Your task to perform on an android device: find snoozed emails in the gmail app Image 0: 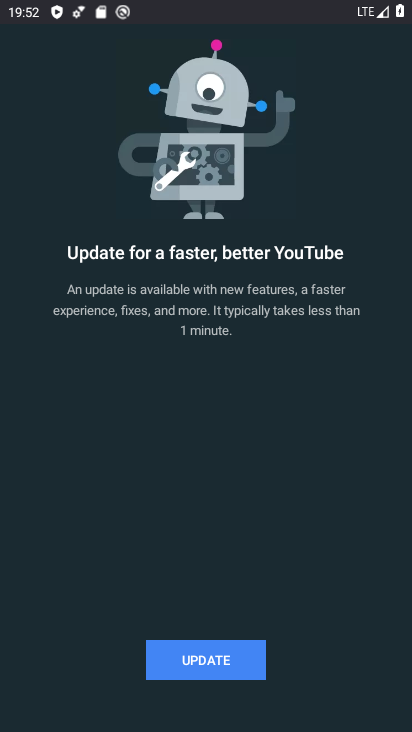
Step 0: press back button
Your task to perform on an android device: find snoozed emails in the gmail app Image 1: 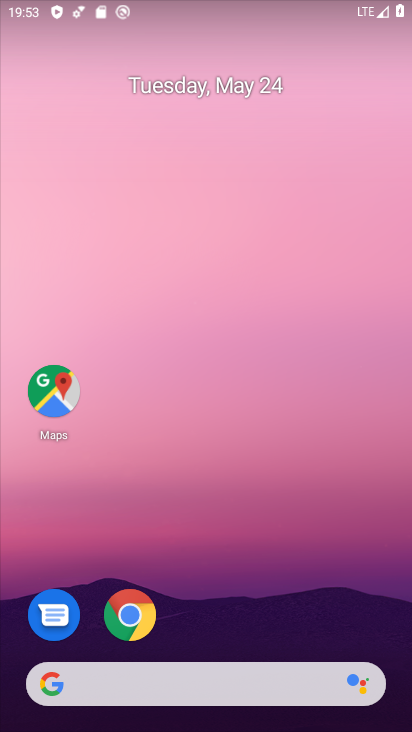
Step 1: drag from (273, 612) to (283, 280)
Your task to perform on an android device: find snoozed emails in the gmail app Image 2: 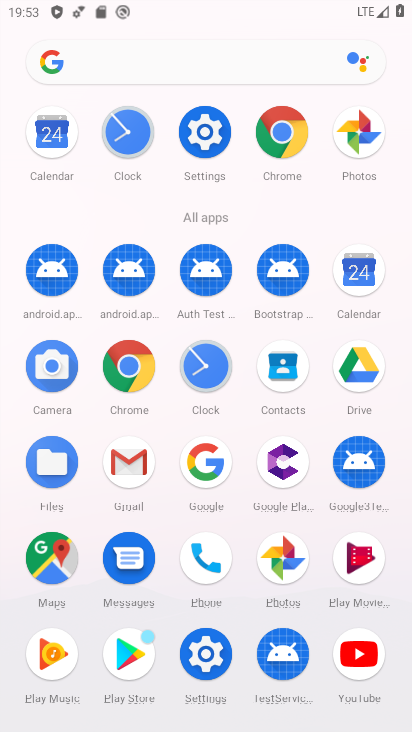
Step 2: click (120, 461)
Your task to perform on an android device: find snoozed emails in the gmail app Image 3: 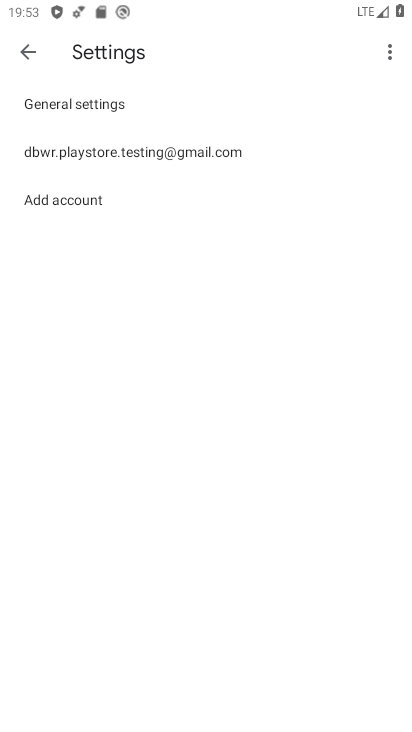
Step 3: click (27, 44)
Your task to perform on an android device: find snoozed emails in the gmail app Image 4: 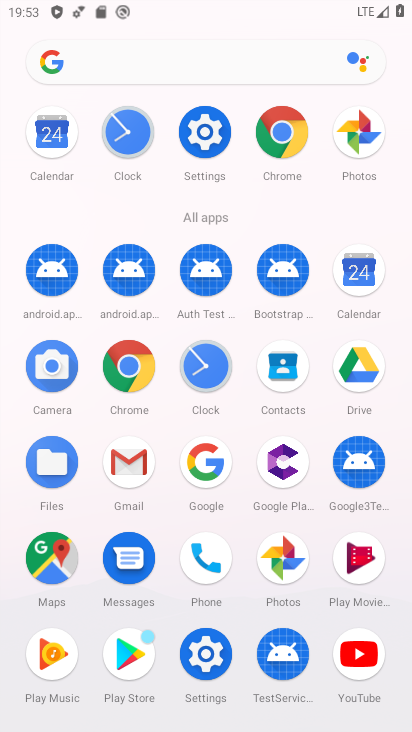
Step 4: click (130, 470)
Your task to perform on an android device: find snoozed emails in the gmail app Image 5: 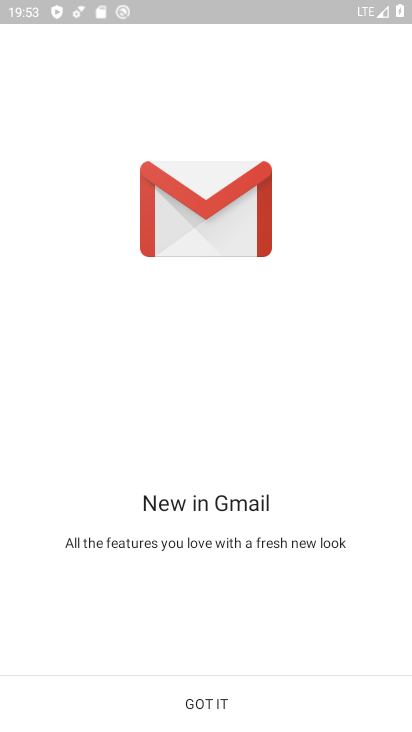
Step 5: click (202, 703)
Your task to perform on an android device: find snoozed emails in the gmail app Image 6: 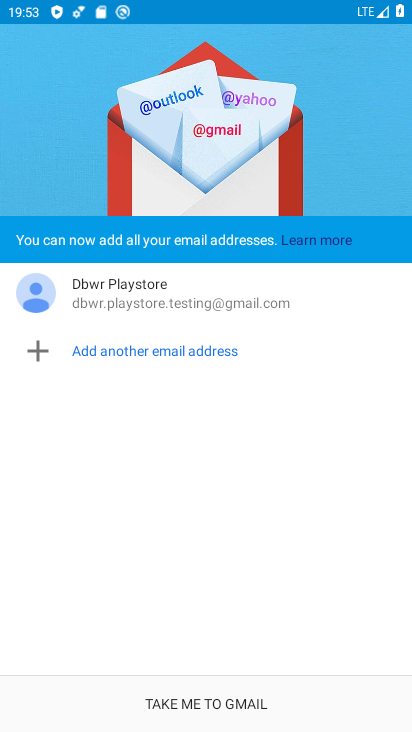
Step 6: click (203, 704)
Your task to perform on an android device: find snoozed emails in the gmail app Image 7: 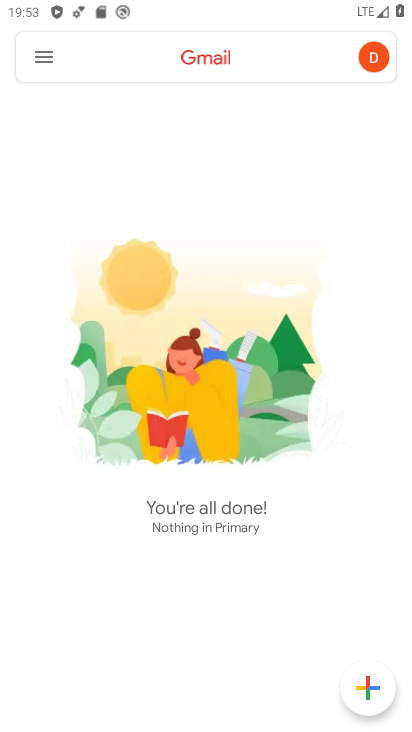
Step 7: click (42, 58)
Your task to perform on an android device: find snoozed emails in the gmail app Image 8: 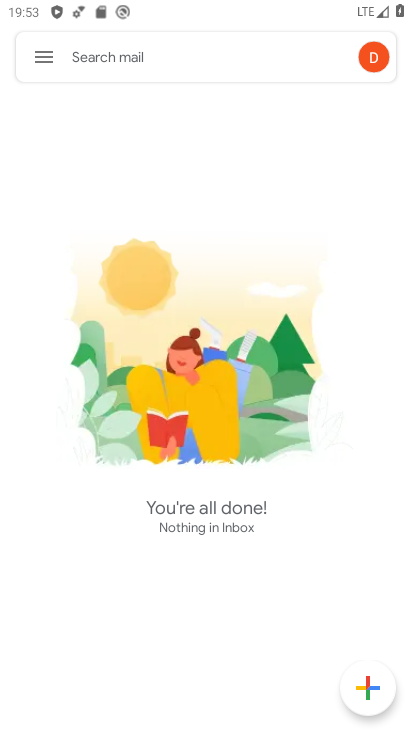
Step 8: click (36, 57)
Your task to perform on an android device: find snoozed emails in the gmail app Image 9: 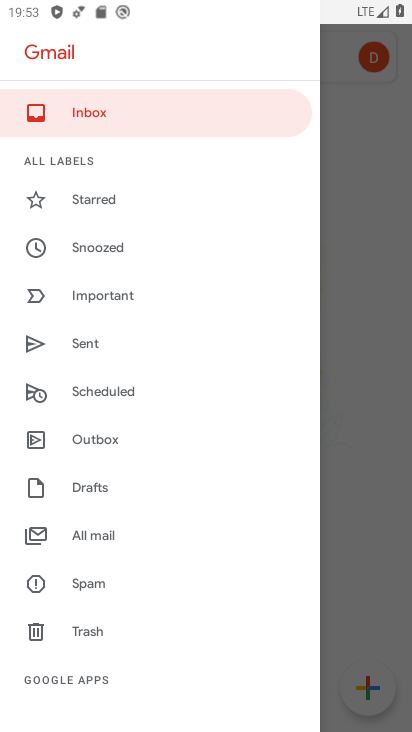
Step 9: click (117, 240)
Your task to perform on an android device: find snoozed emails in the gmail app Image 10: 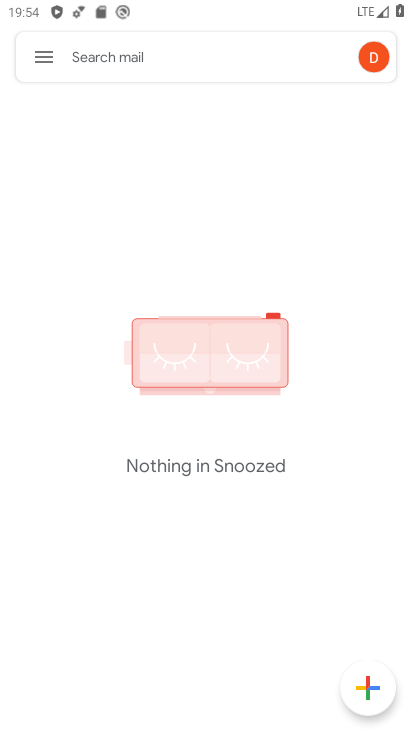
Step 10: task complete